Your task to perform on an android device: Is it going to rain tomorrow? Image 0: 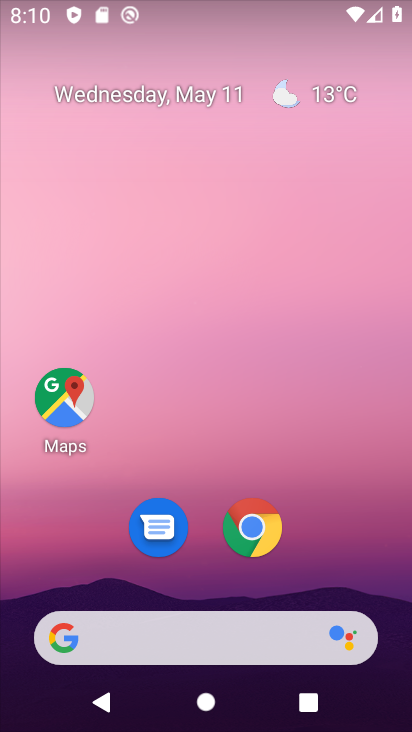
Step 0: click (294, 98)
Your task to perform on an android device: Is it going to rain tomorrow? Image 1: 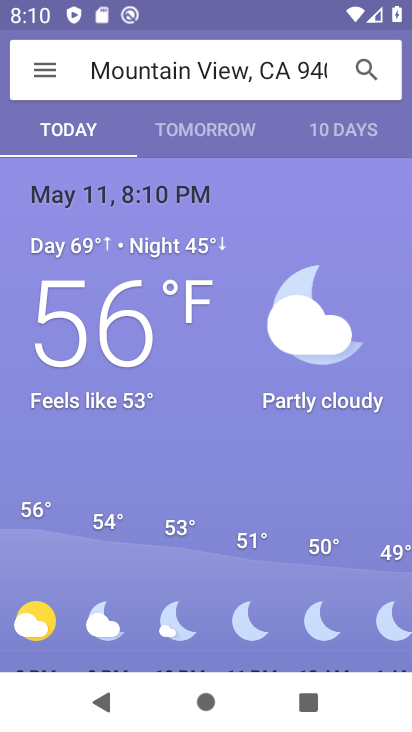
Step 1: click (187, 135)
Your task to perform on an android device: Is it going to rain tomorrow? Image 2: 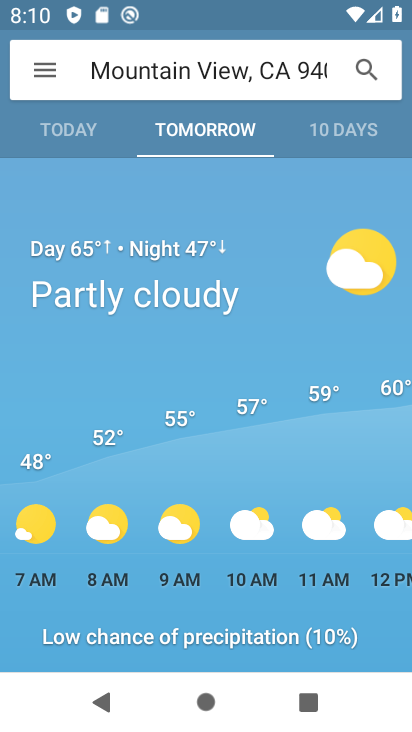
Step 2: task complete